Your task to perform on an android device: turn on javascript in the chrome app Image 0: 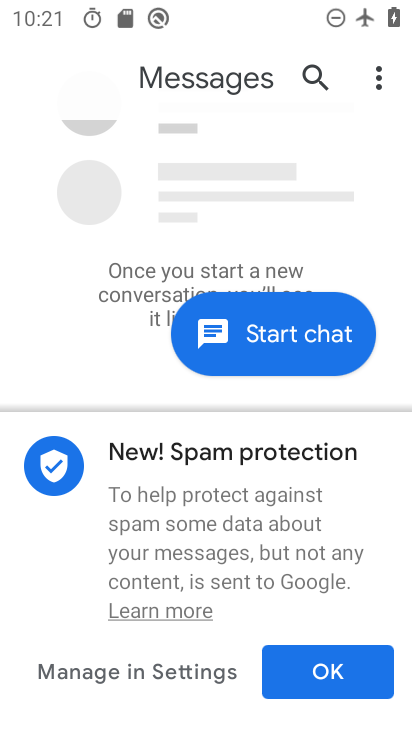
Step 0: click (178, 594)
Your task to perform on an android device: turn on javascript in the chrome app Image 1: 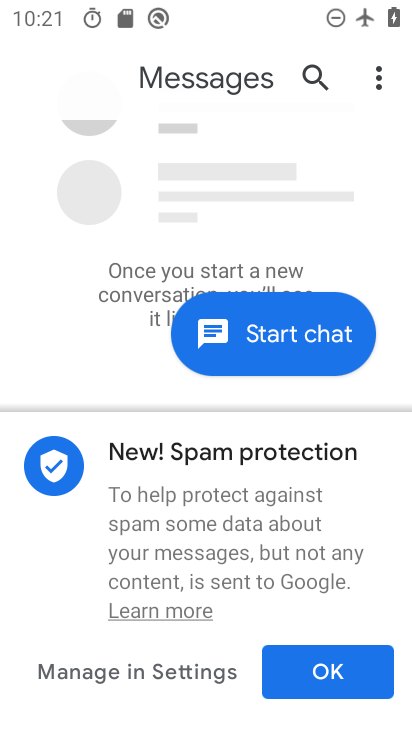
Step 1: press home button
Your task to perform on an android device: turn on javascript in the chrome app Image 2: 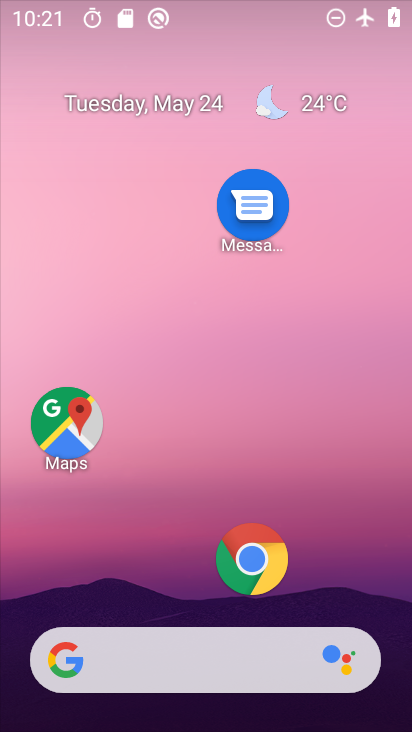
Step 2: click (227, 548)
Your task to perform on an android device: turn on javascript in the chrome app Image 3: 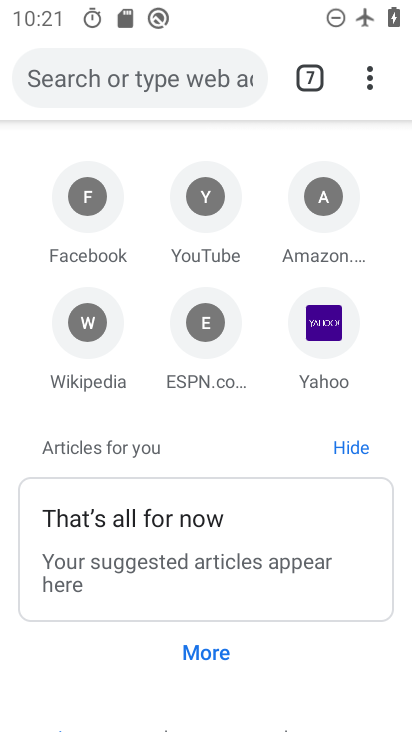
Step 3: click (362, 81)
Your task to perform on an android device: turn on javascript in the chrome app Image 4: 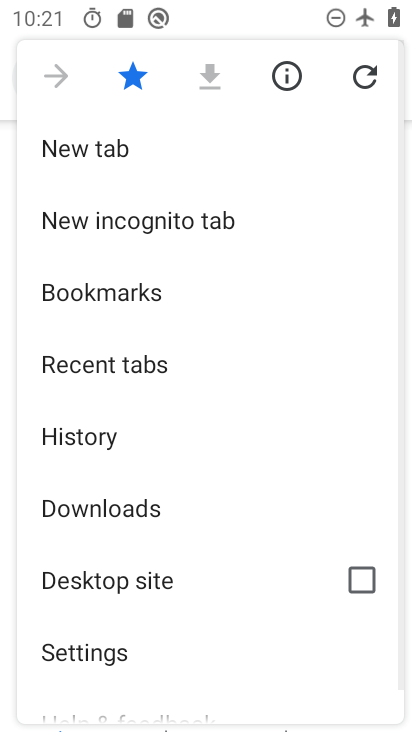
Step 4: click (135, 659)
Your task to perform on an android device: turn on javascript in the chrome app Image 5: 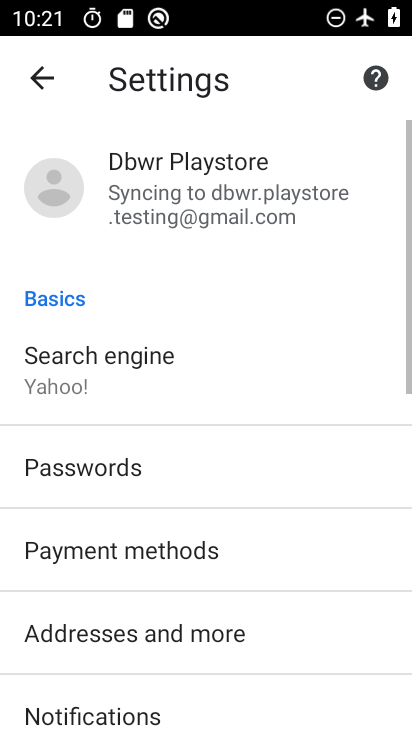
Step 5: drag from (191, 592) to (206, 271)
Your task to perform on an android device: turn on javascript in the chrome app Image 6: 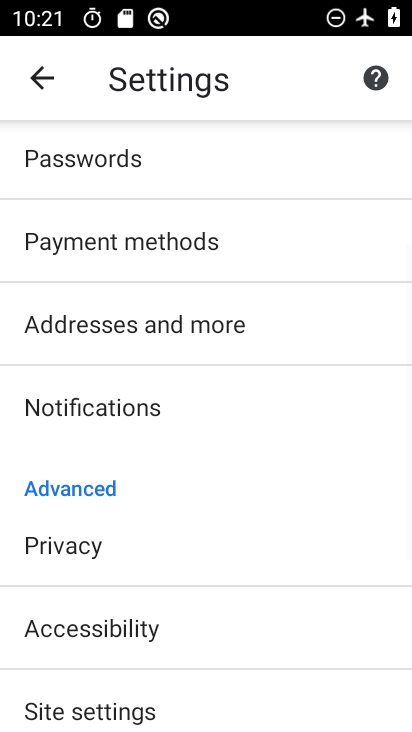
Step 6: drag from (185, 556) to (192, 305)
Your task to perform on an android device: turn on javascript in the chrome app Image 7: 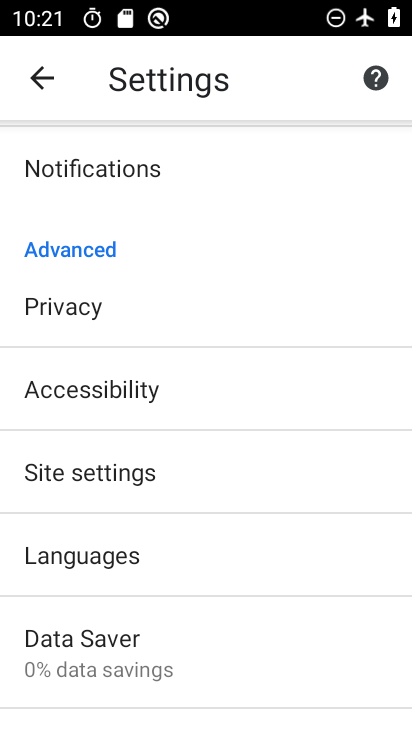
Step 7: click (134, 477)
Your task to perform on an android device: turn on javascript in the chrome app Image 8: 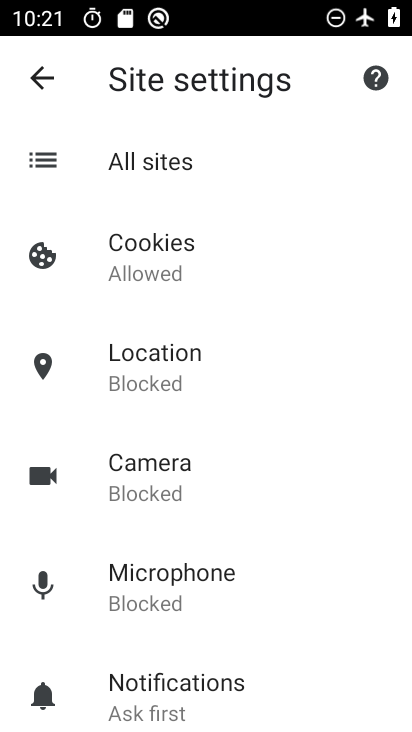
Step 8: drag from (194, 634) to (217, 299)
Your task to perform on an android device: turn on javascript in the chrome app Image 9: 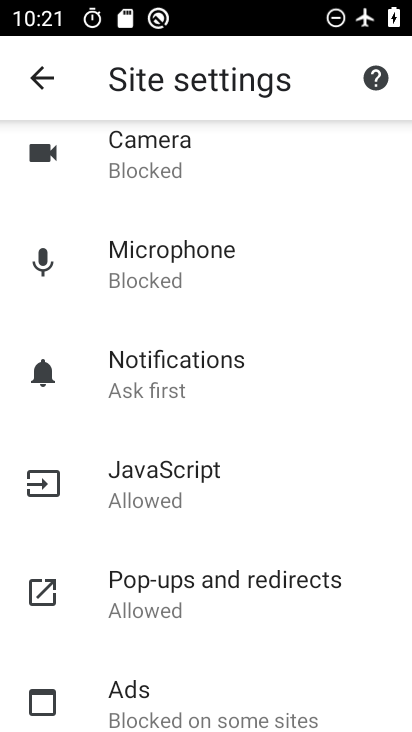
Step 9: click (199, 467)
Your task to perform on an android device: turn on javascript in the chrome app Image 10: 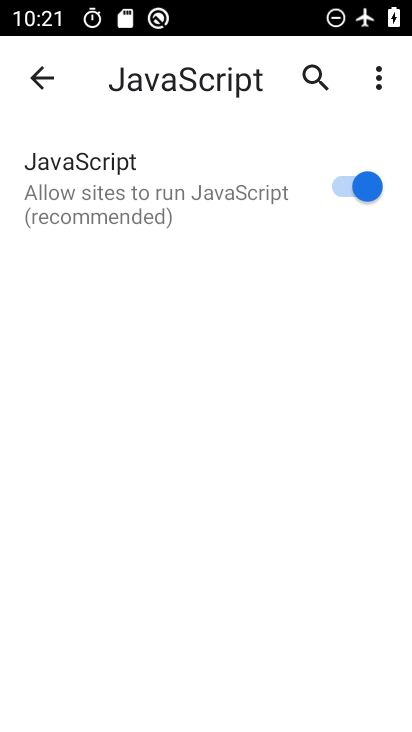
Step 10: task complete